Your task to perform on an android device: check battery use Image 0: 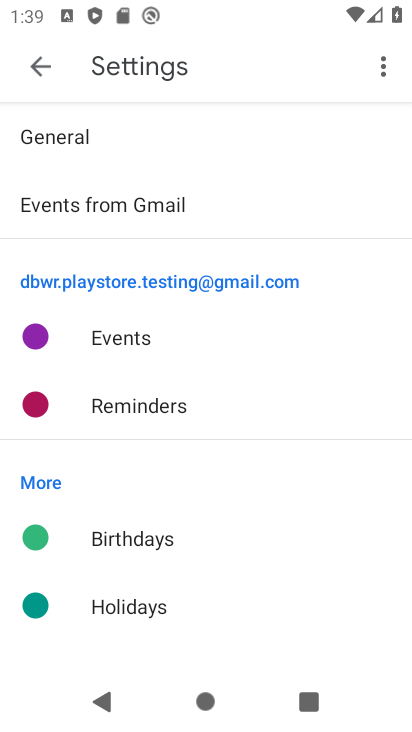
Step 0: press home button
Your task to perform on an android device: check battery use Image 1: 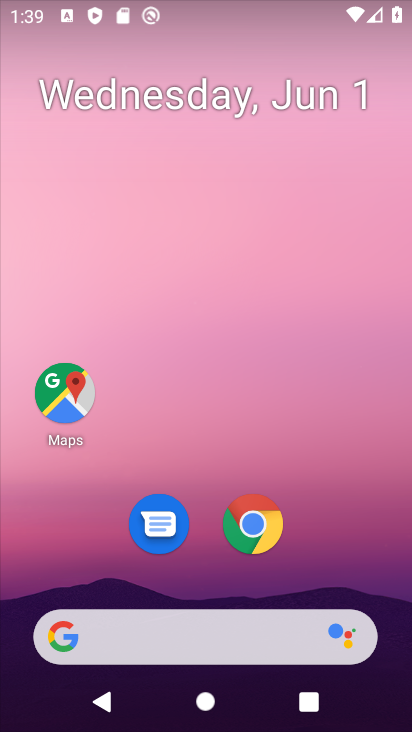
Step 1: drag from (301, 542) to (300, 66)
Your task to perform on an android device: check battery use Image 2: 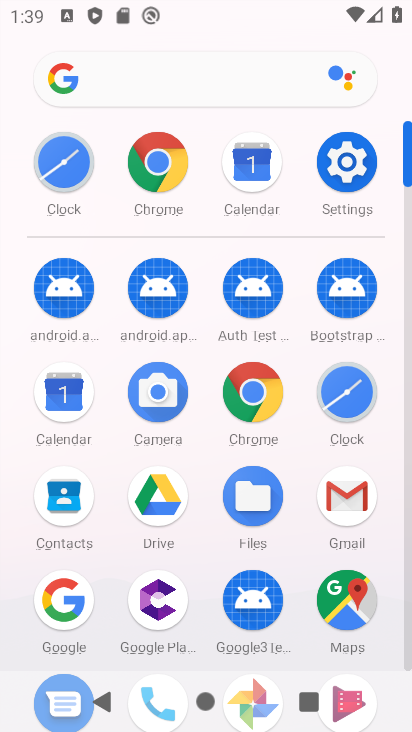
Step 2: click (342, 153)
Your task to perform on an android device: check battery use Image 3: 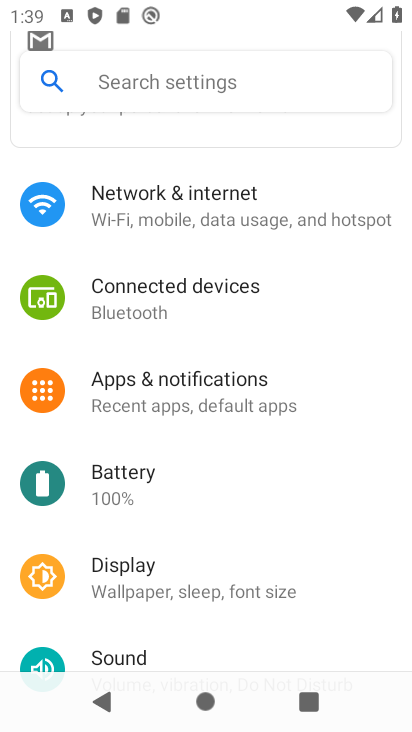
Step 3: click (180, 457)
Your task to perform on an android device: check battery use Image 4: 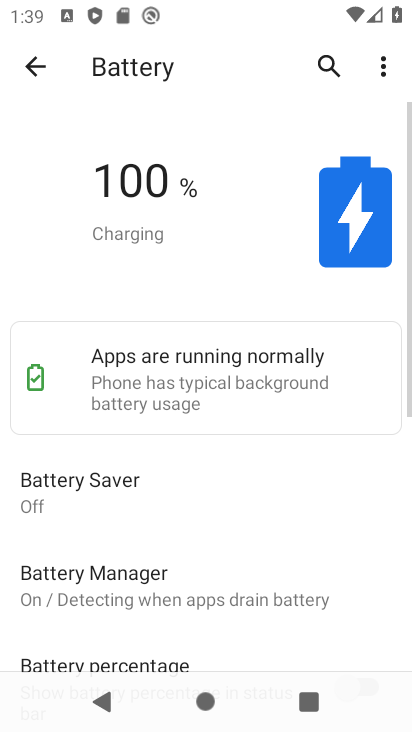
Step 4: click (382, 70)
Your task to perform on an android device: check battery use Image 5: 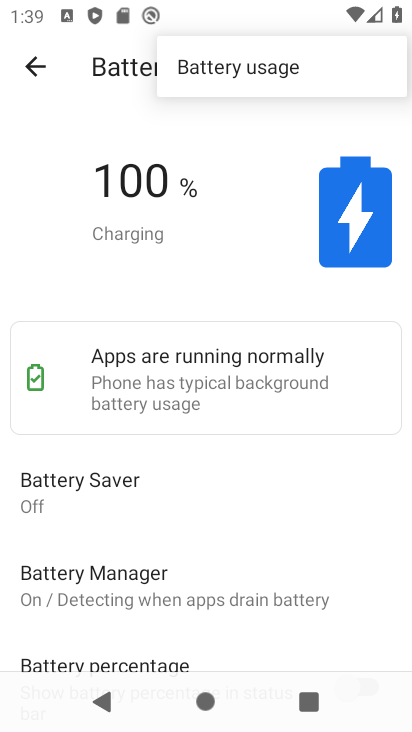
Step 5: click (295, 61)
Your task to perform on an android device: check battery use Image 6: 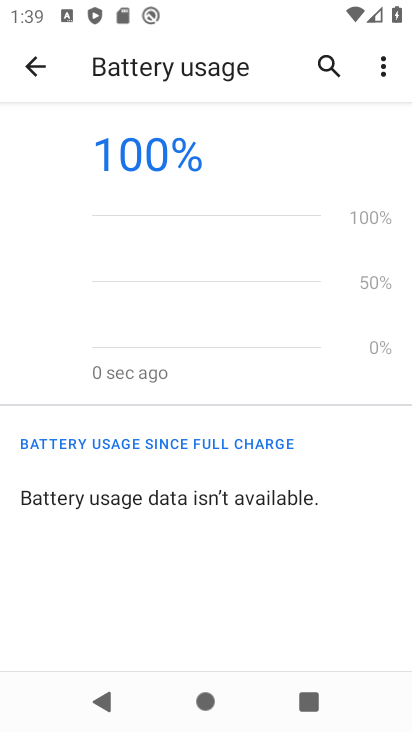
Step 6: task complete